Your task to perform on an android device: Open settings on Google Maps Image 0: 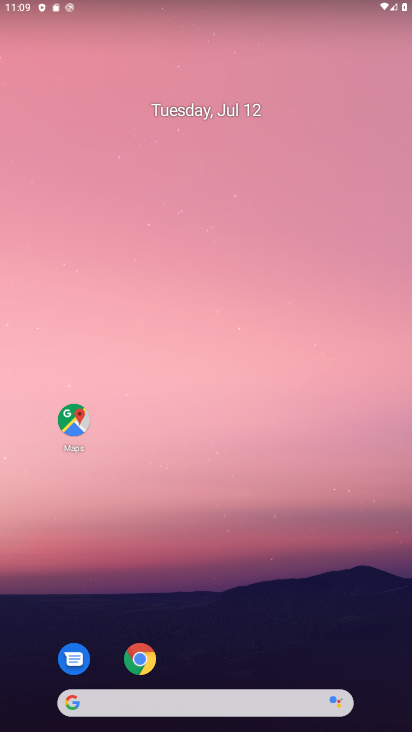
Step 0: drag from (288, 709) to (221, 10)
Your task to perform on an android device: Open settings on Google Maps Image 1: 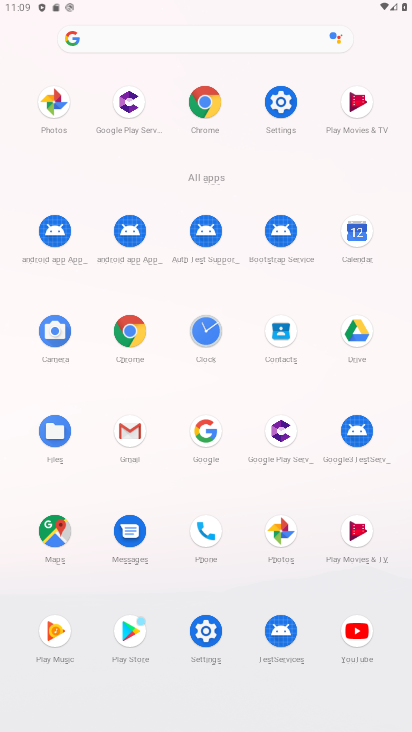
Step 1: click (58, 527)
Your task to perform on an android device: Open settings on Google Maps Image 2: 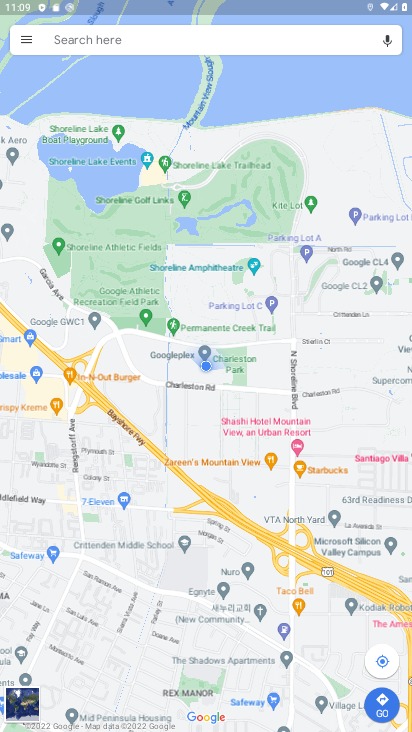
Step 2: task complete